Your task to perform on an android device: check storage Image 0: 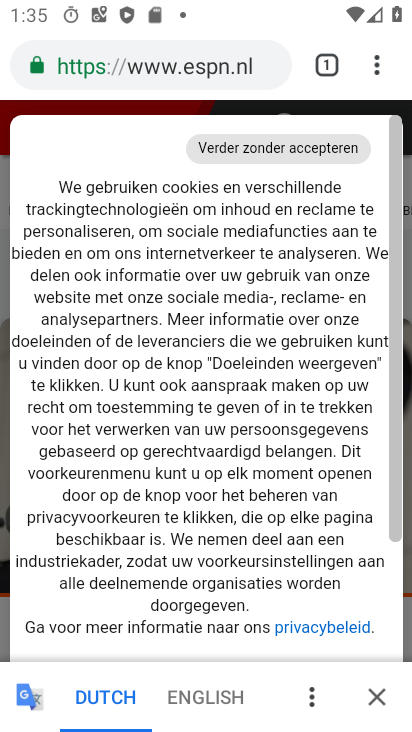
Step 0: press home button
Your task to perform on an android device: check storage Image 1: 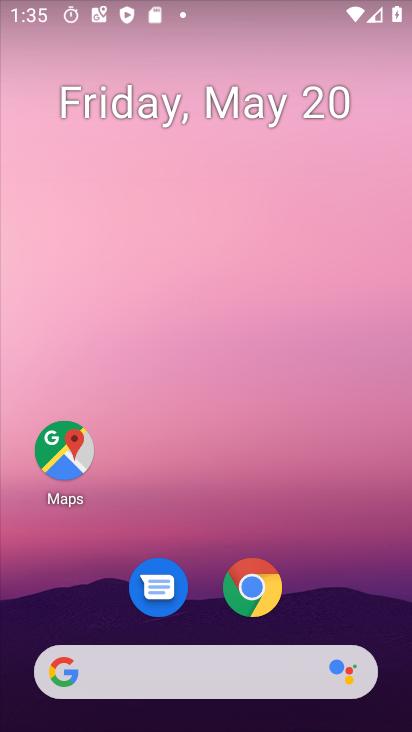
Step 1: drag from (301, 449) to (310, 116)
Your task to perform on an android device: check storage Image 2: 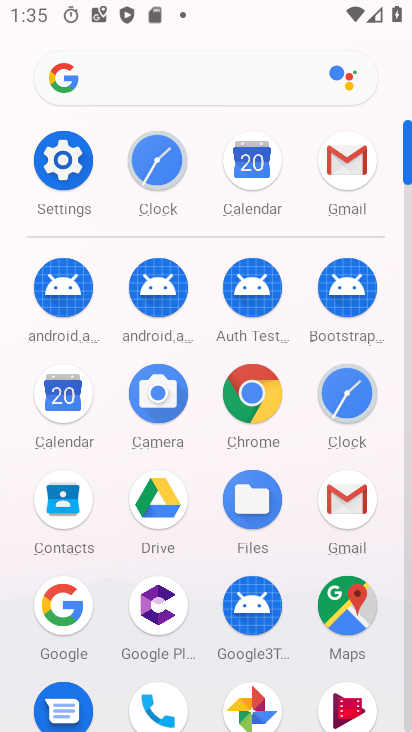
Step 2: click (61, 150)
Your task to perform on an android device: check storage Image 3: 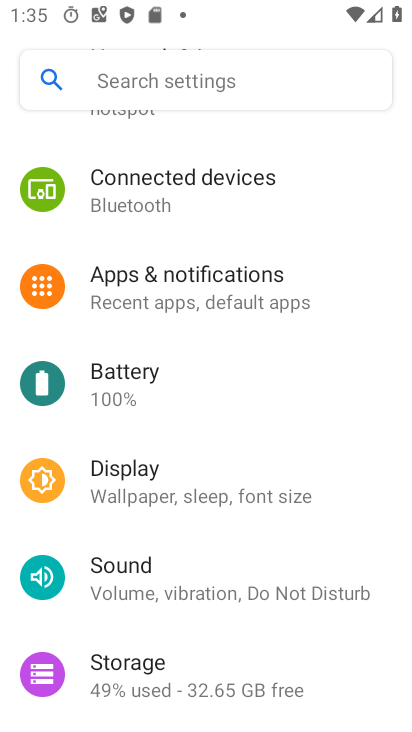
Step 3: click (126, 665)
Your task to perform on an android device: check storage Image 4: 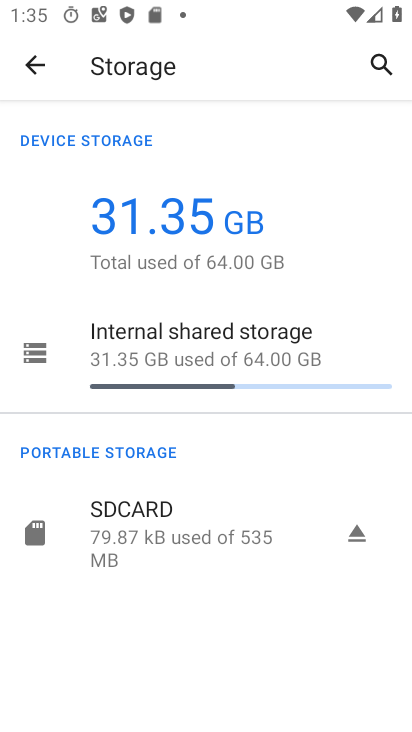
Step 4: task complete